Your task to perform on an android device: turn on sleep mode Image 0: 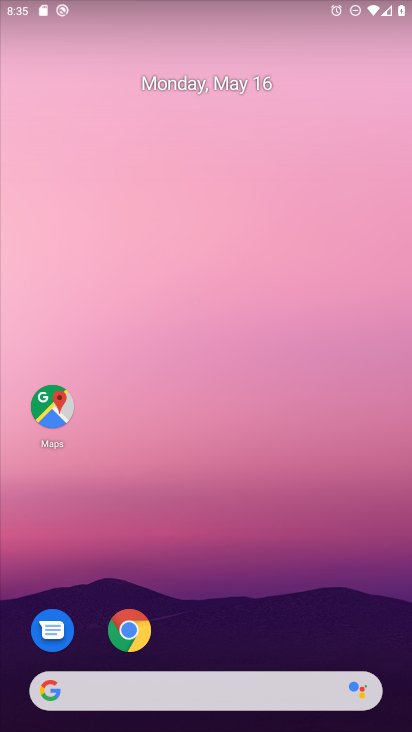
Step 0: drag from (223, 607) to (175, 131)
Your task to perform on an android device: turn on sleep mode Image 1: 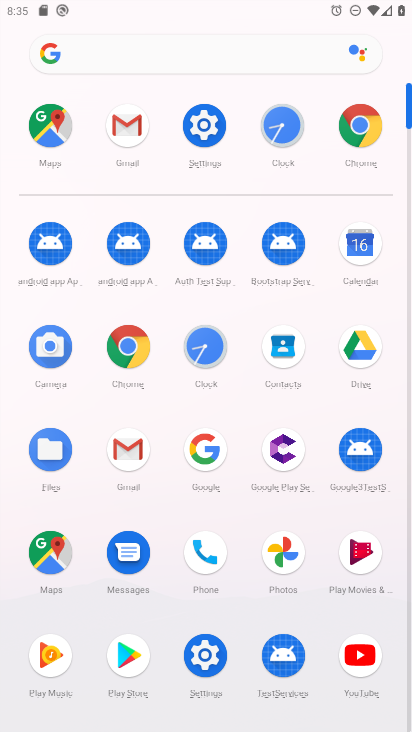
Step 1: click (204, 131)
Your task to perform on an android device: turn on sleep mode Image 2: 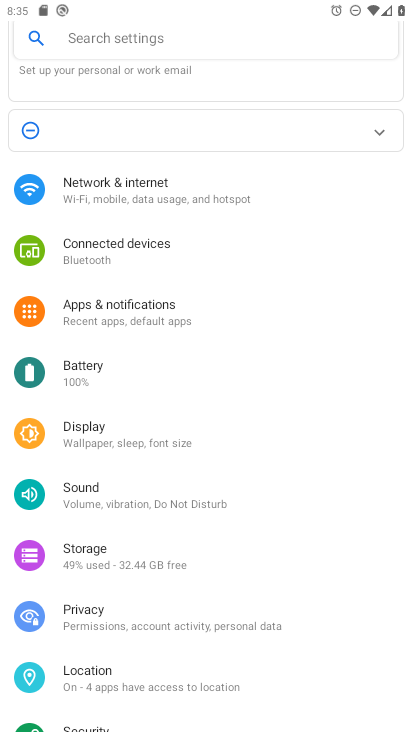
Step 2: click (179, 443)
Your task to perform on an android device: turn on sleep mode Image 3: 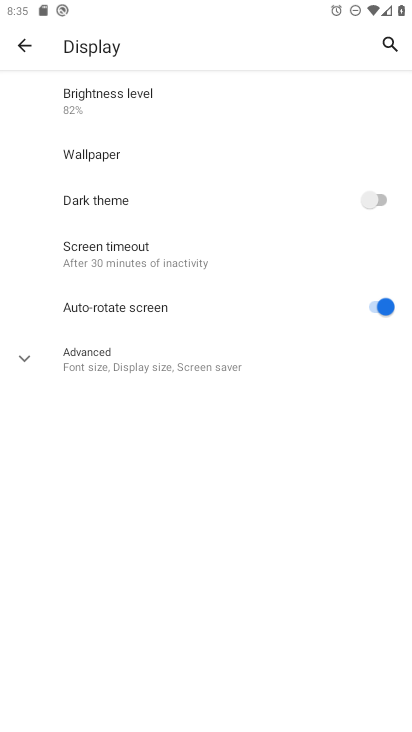
Step 3: click (115, 356)
Your task to perform on an android device: turn on sleep mode Image 4: 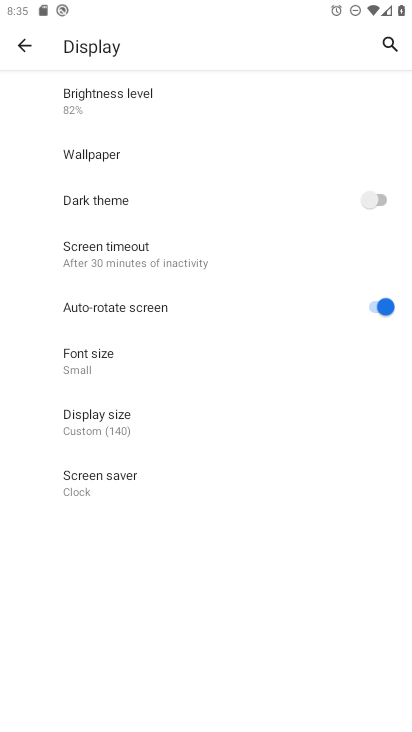
Step 4: task complete